Your task to perform on an android device: turn on sleep mode Image 0: 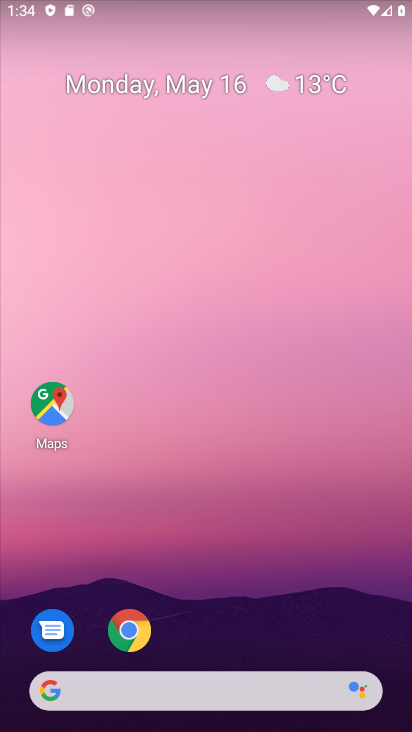
Step 0: drag from (366, 523) to (367, 167)
Your task to perform on an android device: turn on sleep mode Image 1: 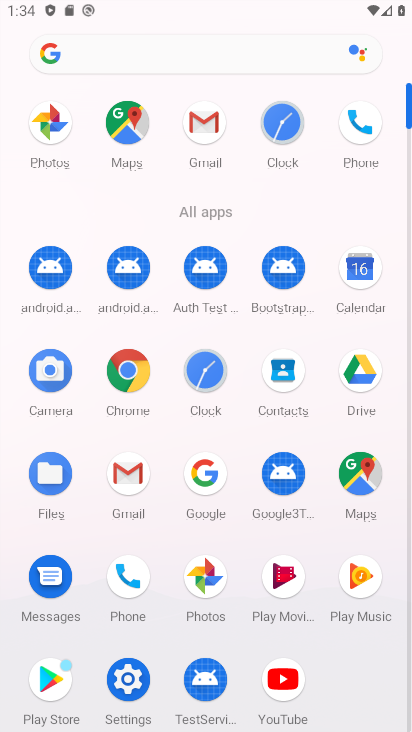
Step 1: click (125, 676)
Your task to perform on an android device: turn on sleep mode Image 2: 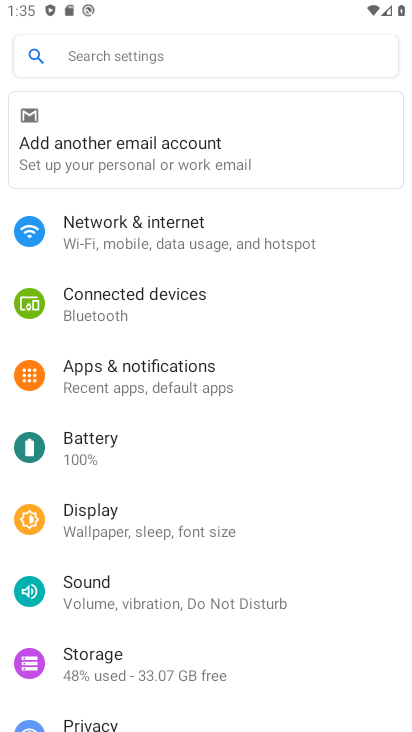
Step 2: click (169, 60)
Your task to perform on an android device: turn on sleep mode Image 3: 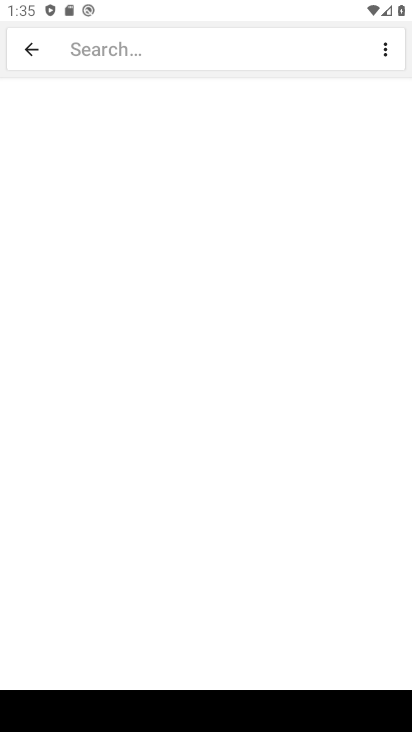
Step 3: type "sleep mode"
Your task to perform on an android device: turn on sleep mode Image 4: 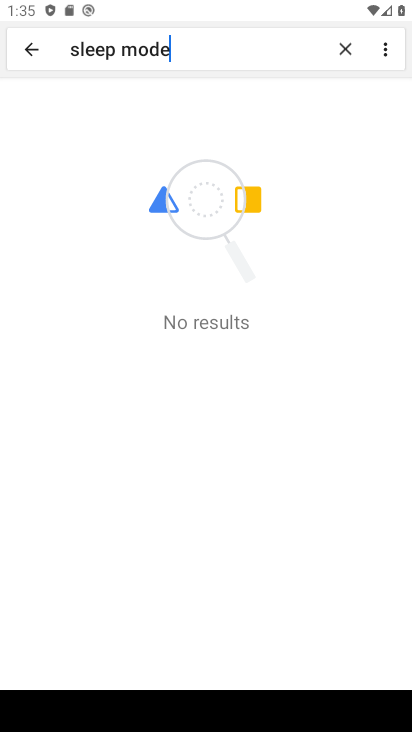
Step 4: task complete